Your task to perform on an android device: Open my contact list Image 0: 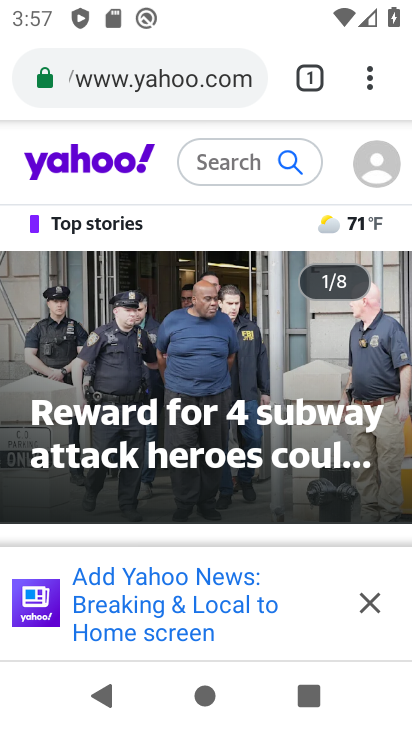
Step 0: press home button
Your task to perform on an android device: Open my contact list Image 1: 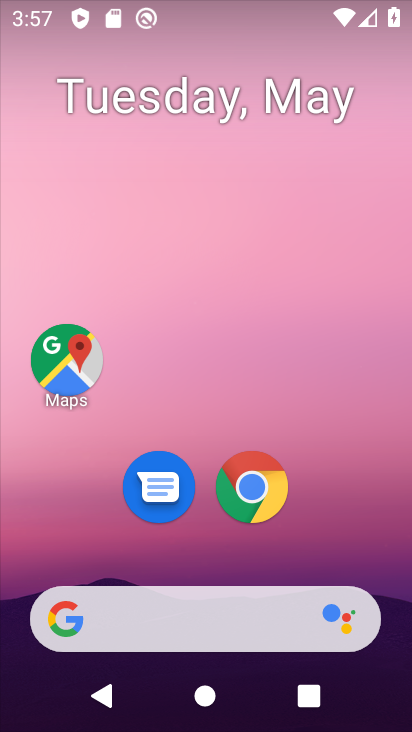
Step 1: drag from (321, 469) to (312, 144)
Your task to perform on an android device: Open my contact list Image 2: 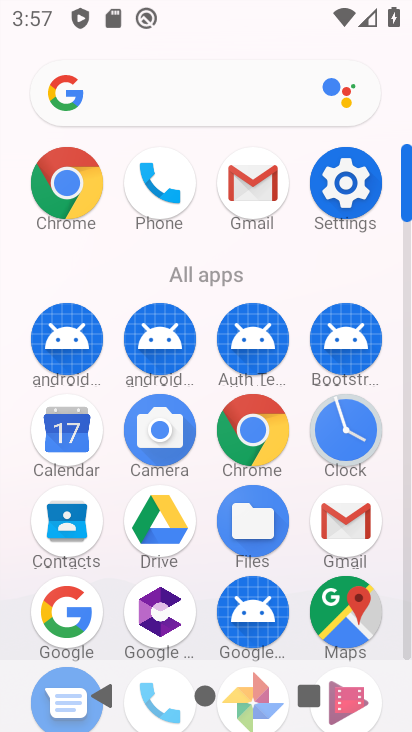
Step 2: drag from (192, 568) to (229, 264)
Your task to perform on an android device: Open my contact list Image 3: 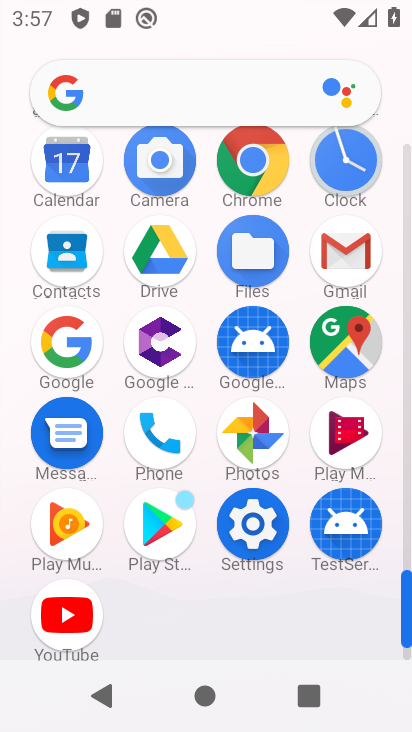
Step 3: drag from (201, 274) to (209, 610)
Your task to perform on an android device: Open my contact list Image 4: 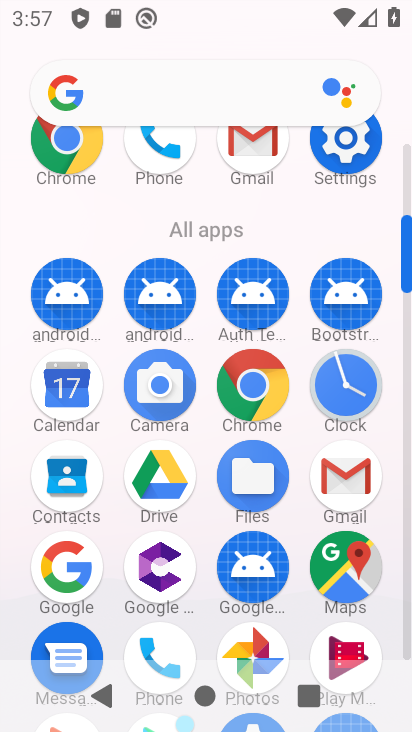
Step 4: drag from (204, 332) to (203, 488)
Your task to perform on an android device: Open my contact list Image 5: 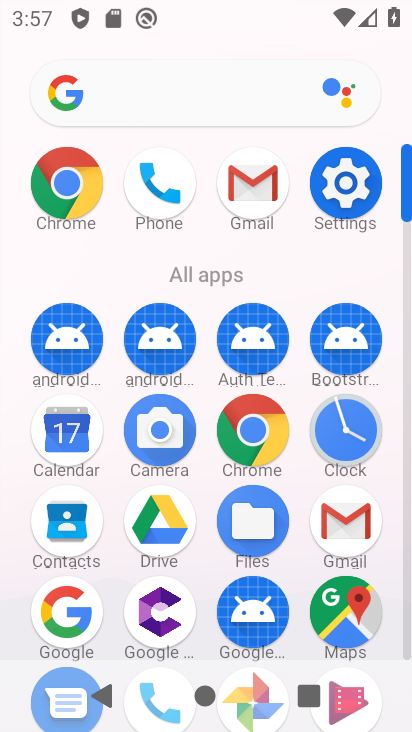
Step 5: click (80, 522)
Your task to perform on an android device: Open my contact list Image 6: 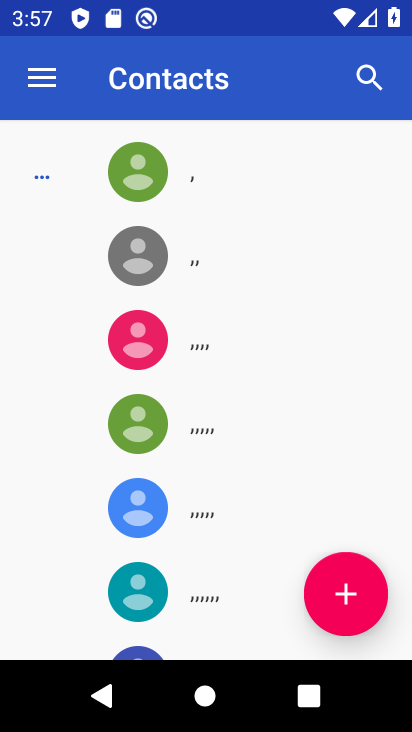
Step 6: task complete